Your task to perform on an android device: Open display settings Image 0: 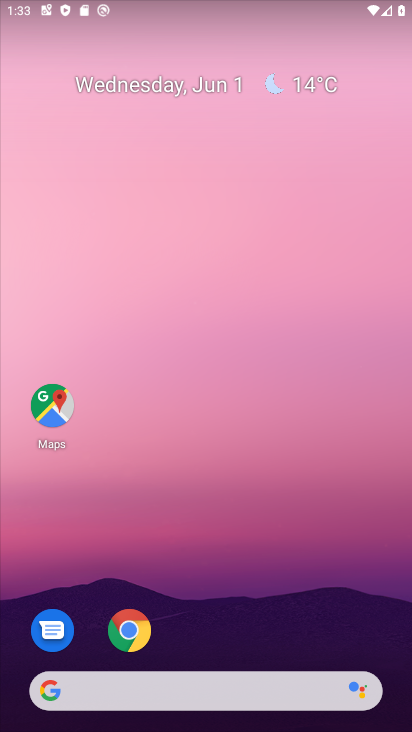
Step 0: press home button
Your task to perform on an android device: Open display settings Image 1: 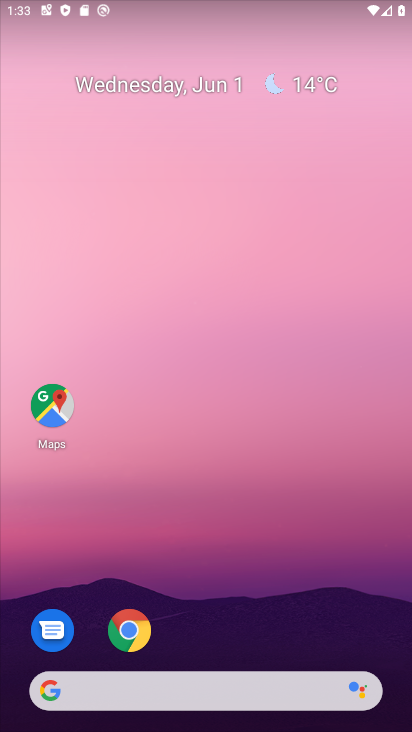
Step 1: drag from (217, 653) to (282, 98)
Your task to perform on an android device: Open display settings Image 2: 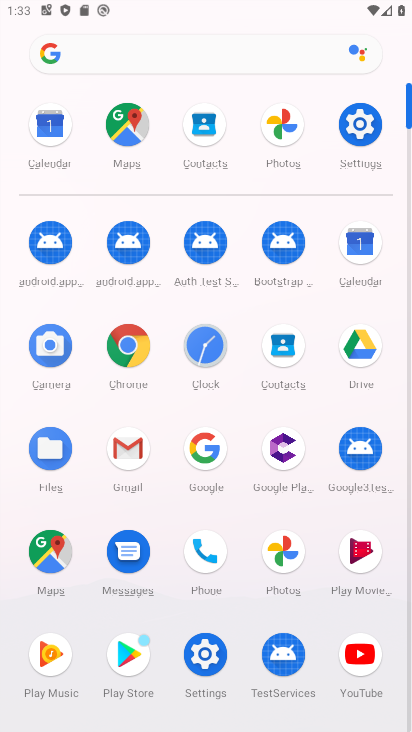
Step 2: click (359, 113)
Your task to perform on an android device: Open display settings Image 3: 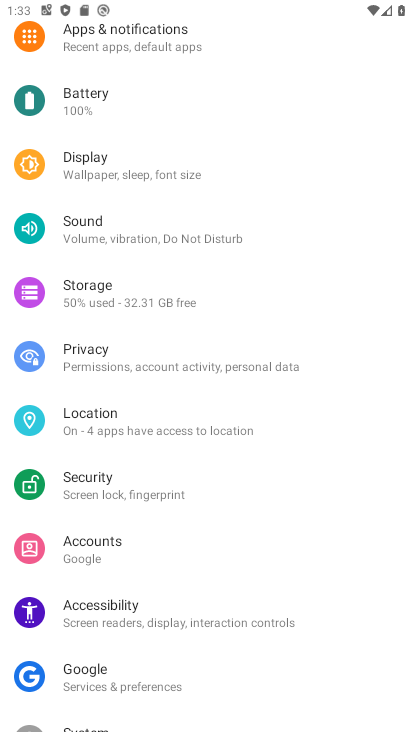
Step 3: click (117, 152)
Your task to perform on an android device: Open display settings Image 4: 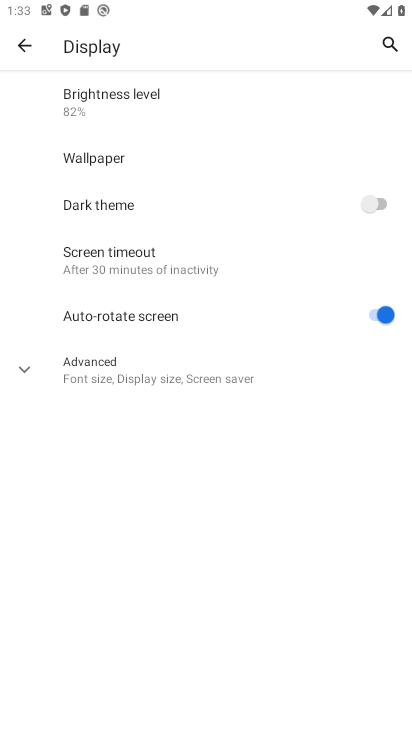
Step 4: click (21, 368)
Your task to perform on an android device: Open display settings Image 5: 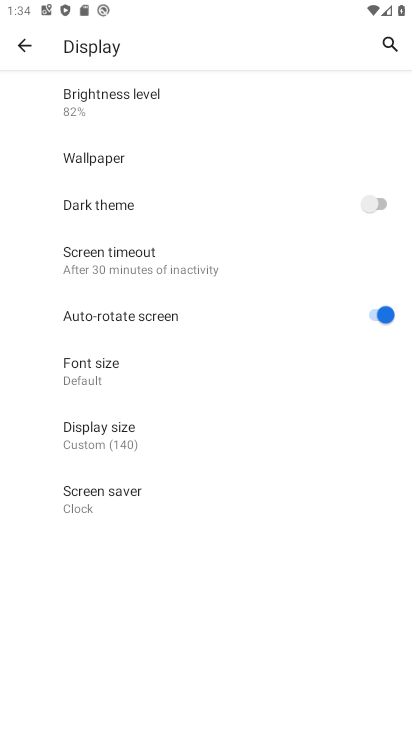
Step 5: task complete